Your task to perform on an android device: install app "Messages" Image 0: 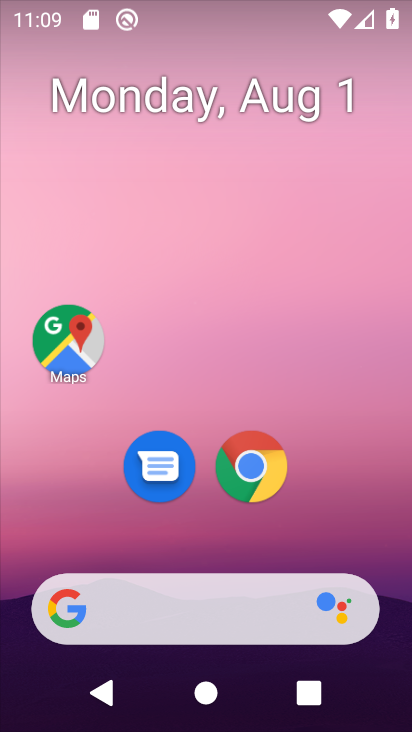
Step 0: drag from (237, 723) to (228, 149)
Your task to perform on an android device: install app "Messages" Image 1: 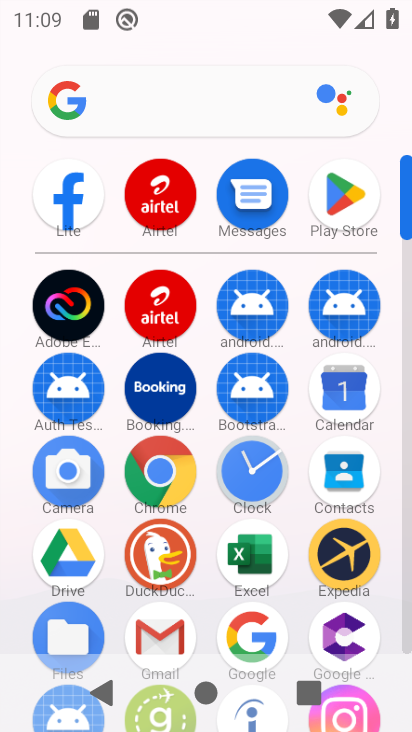
Step 1: click (348, 194)
Your task to perform on an android device: install app "Messages" Image 2: 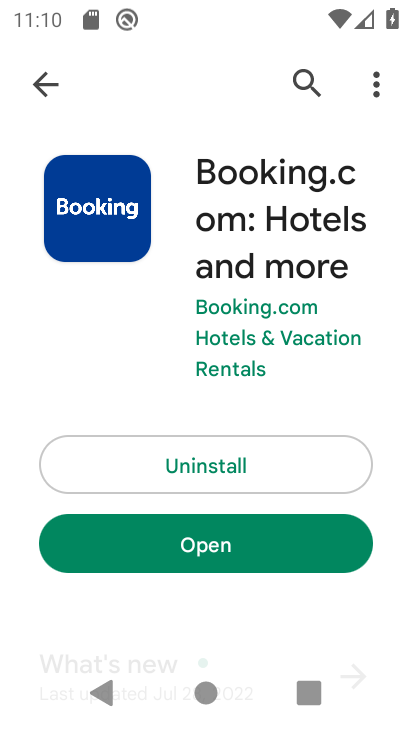
Step 2: click (304, 81)
Your task to perform on an android device: install app "Messages" Image 3: 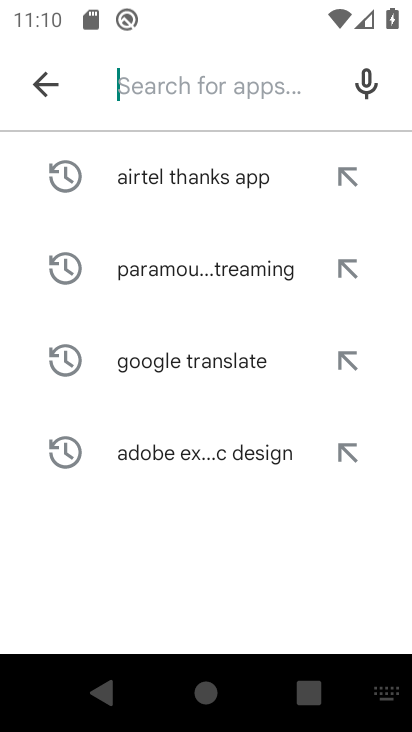
Step 3: type "Messages"
Your task to perform on an android device: install app "Messages" Image 4: 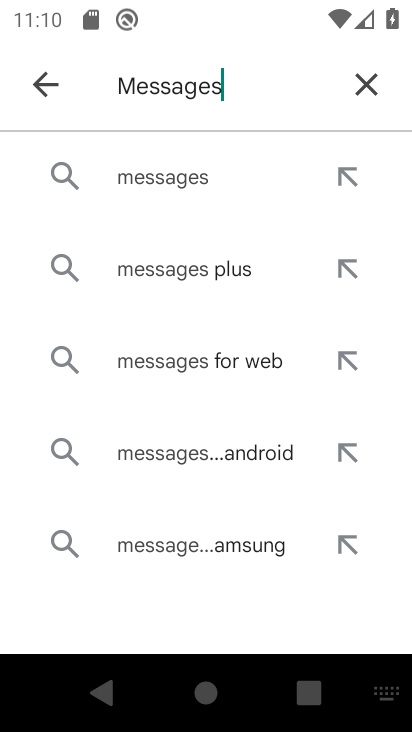
Step 4: type ""
Your task to perform on an android device: install app "Messages" Image 5: 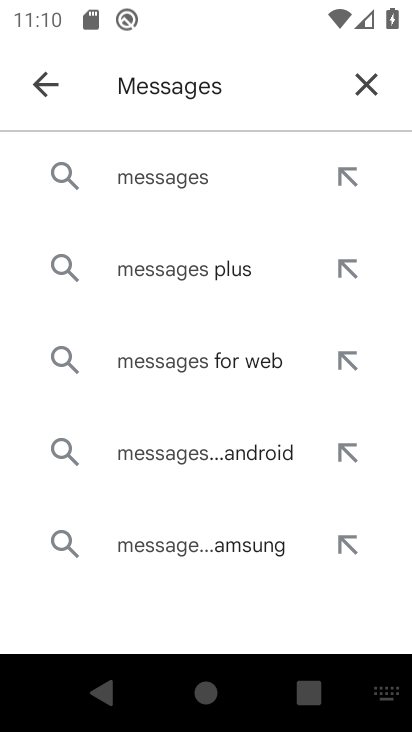
Step 5: click (159, 184)
Your task to perform on an android device: install app "Messages" Image 6: 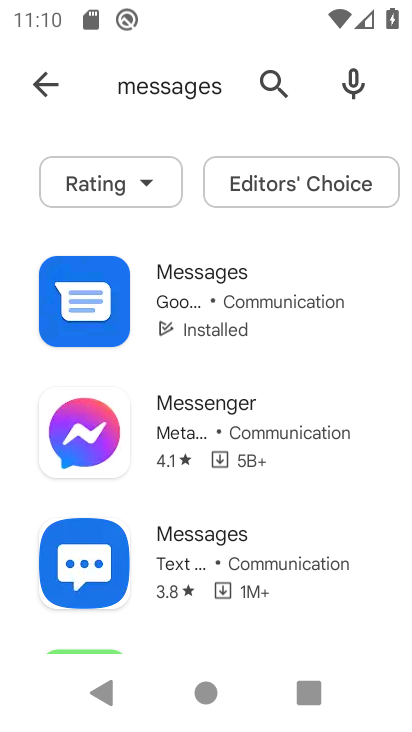
Step 6: click (228, 284)
Your task to perform on an android device: install app "Messages" Image 7: 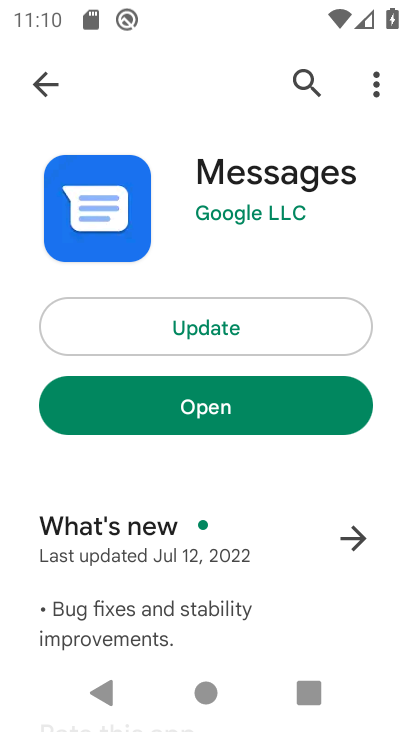
Step 7: task complete